Your task to perform on an android device: move a message to another label in the gmail app Image 0: 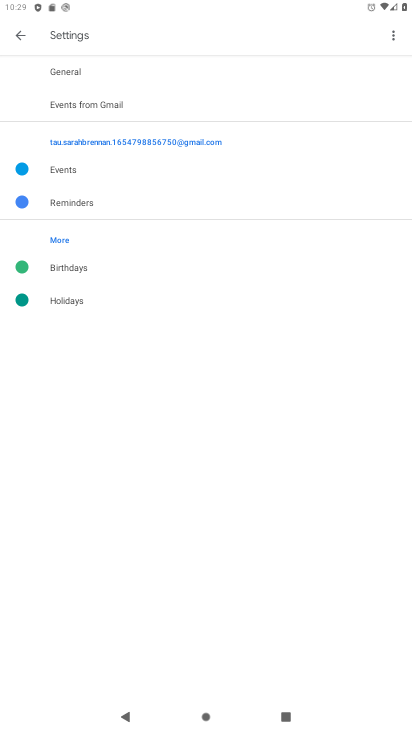
Step 0: press home button
Your task to perform on an android device: move a message to another label in the gmail app Image 1: 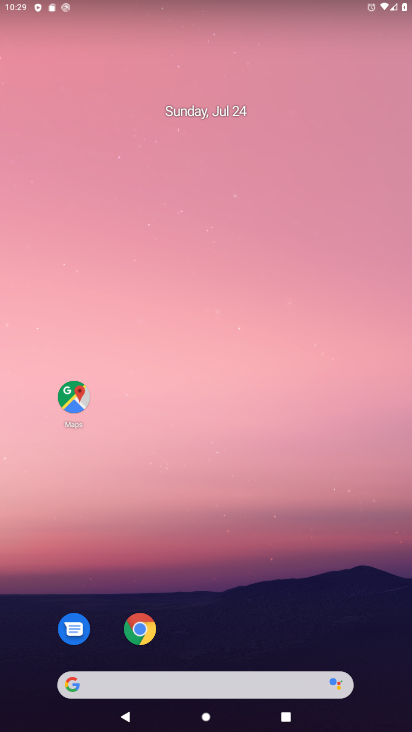
Step 1: drag from (142, 684) to (224, 45)
Your task to perform on an android device: move a message to another label in the gmail app Image 2: 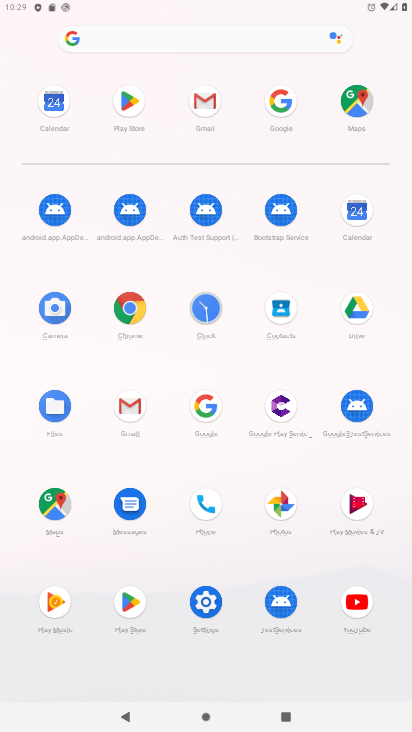
Step 2: click (205, 100)
Your task to perform on an android device: move a message to another label in the gmail app Image 3: 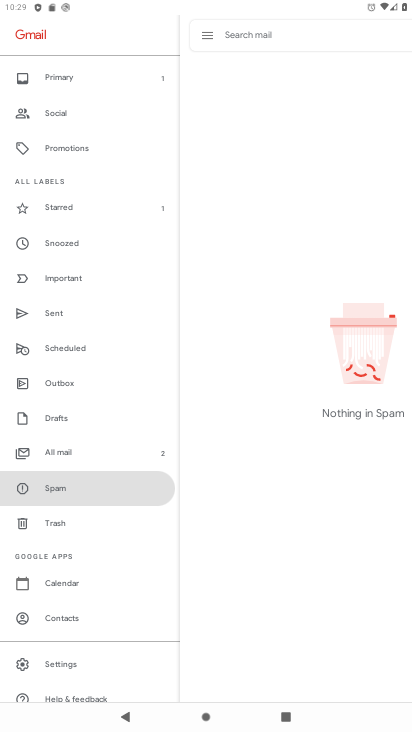
Step 3: click (108, 455)
Your task to perform on an android device: move a message to another label in the gmail app Image 4: 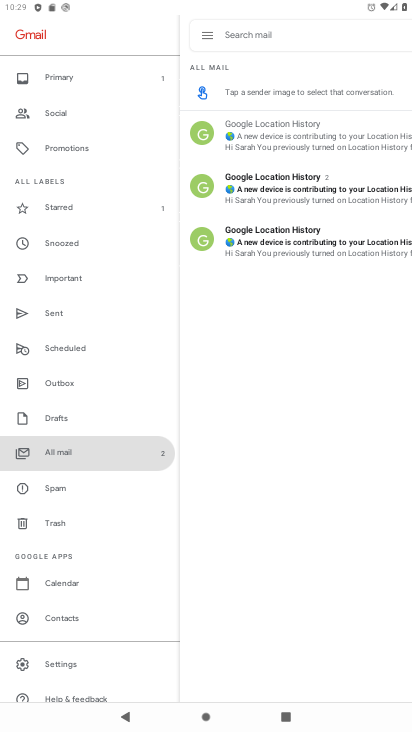
Step 4: click (260, 147)
Your task to perform on an android device: move a message to another label in the gmail app Image 5: 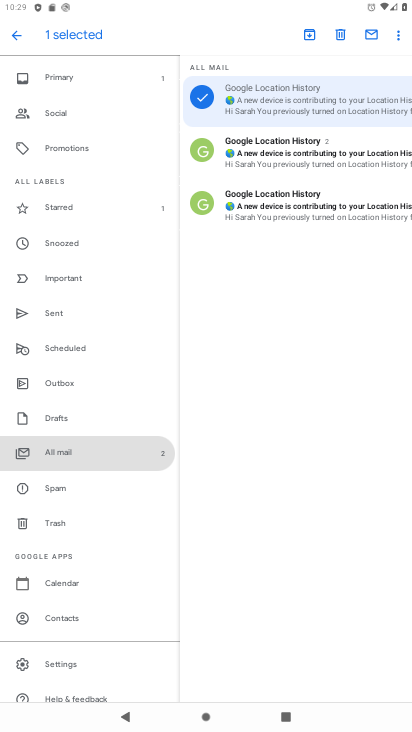
Step 5: click (396, 34)
Your task to perform on an android device: move a message to another label in the gmail app Image 6: 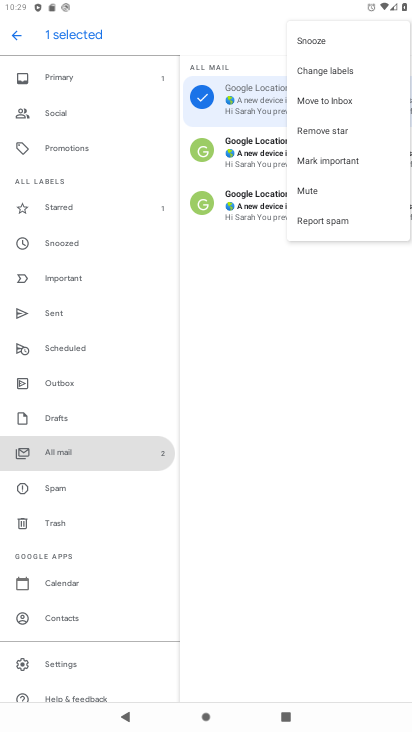
Step 6: click (337, 100)
Your task to perform on an android device: move a message to another label in the gmail app Image 7: 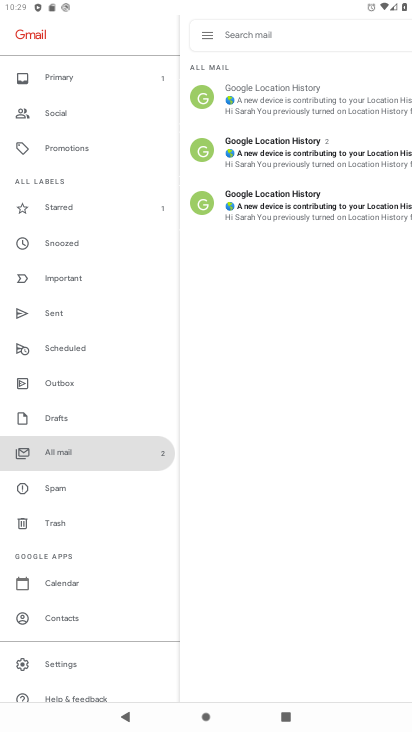
Step 7: task complete